Your task to perform on an android device: install app "Pinterest" Image 0: 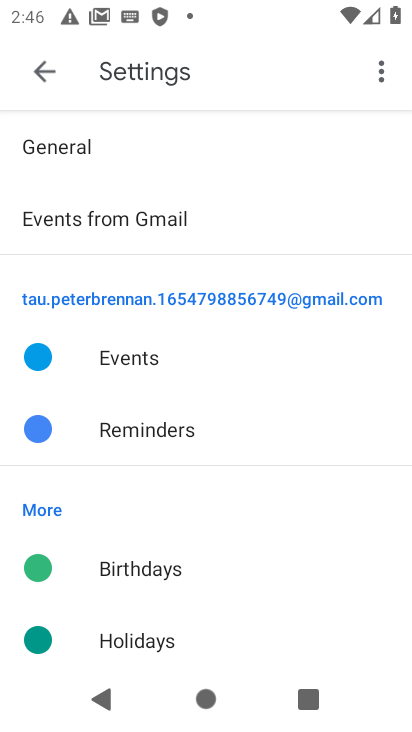
Step 0: press home button
Your task to perform on an android device: install app "Pinterest" Image 1: 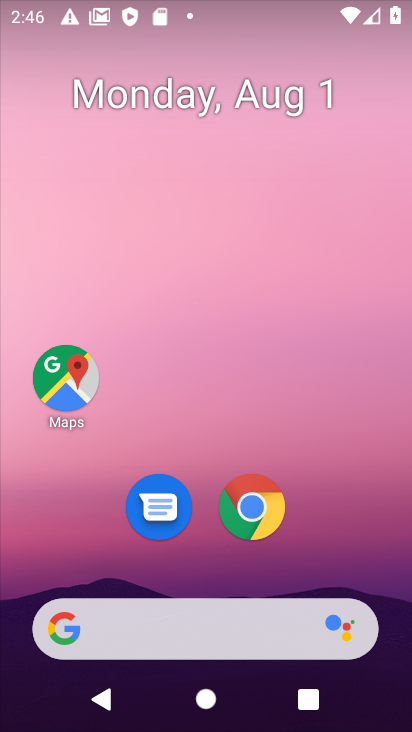
Step 1: drag from (319, 538) to (311, 13)
Your task to perform on an android device: install app "Pinterest" Image 2: 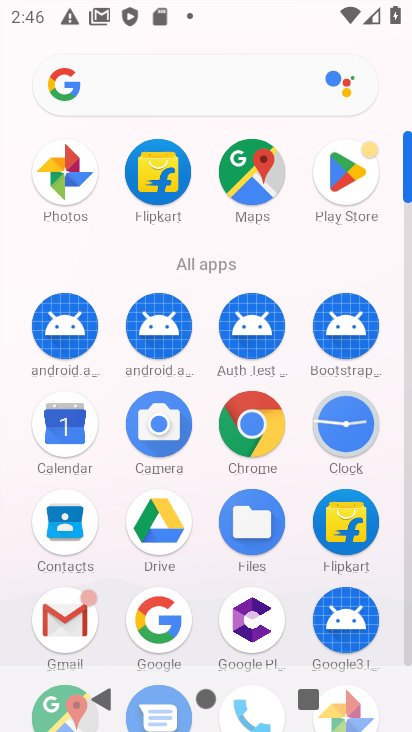
Step 2: click (354, 168)
Your task to perform on an android device: install app "Pinterest" Image 3: 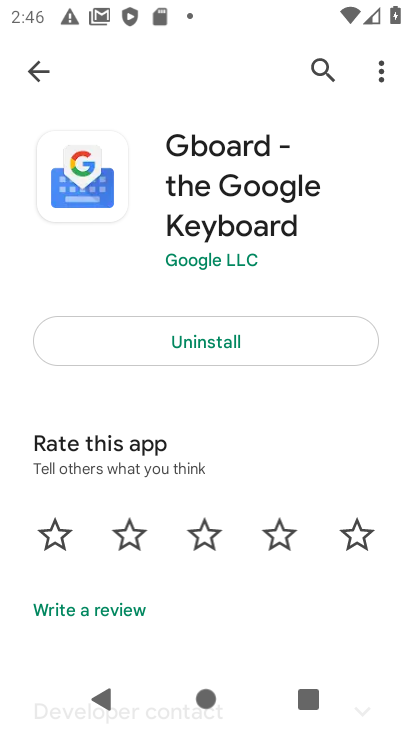
Step 3: click (331, 63)
Your task to perform on an android device: install app "Pinterest" Image 4: 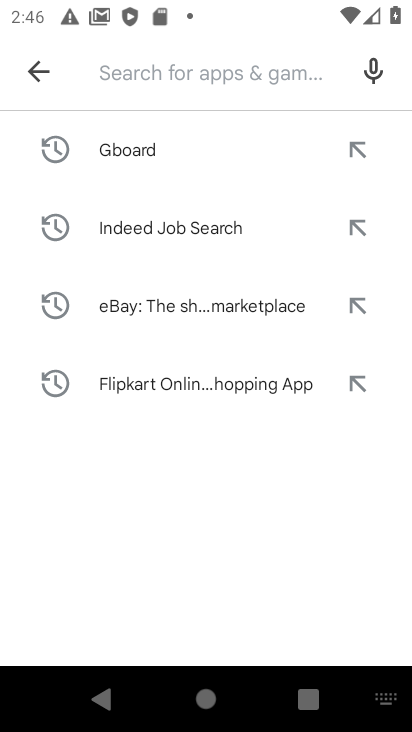
Step 4: type "Pinterest"
Your task to perform on an android device: install app "Pinterest" Image 5: 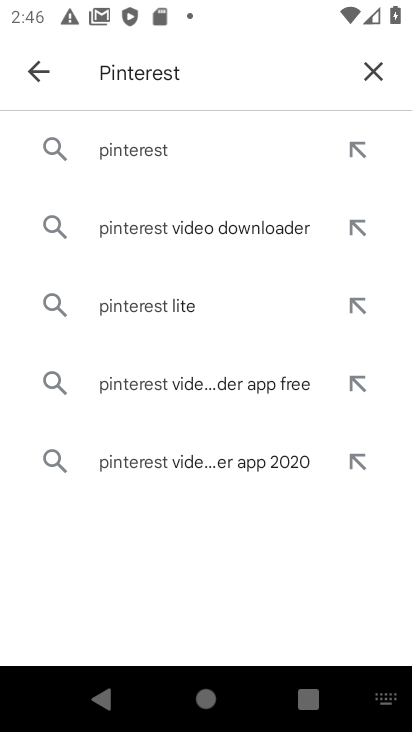
Step 5: press enter
Your task to perform on an android device: install app "Pinterest" Image 6: 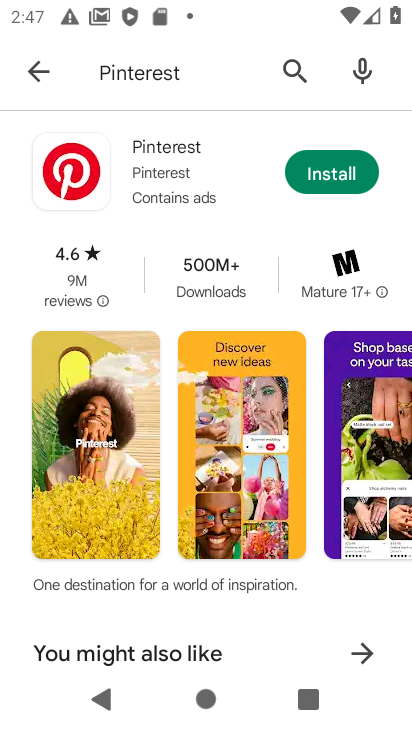
Step 6: click (317, 169)
Your task to perform on an android device: install app "Pinterest" Image 7: 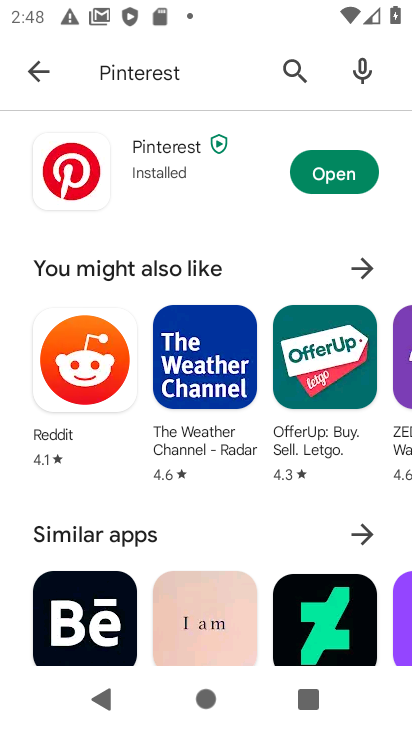
Step 7: task complete